Your task to perform on an android device: turn on notifications settings in the gmail app Image 0: 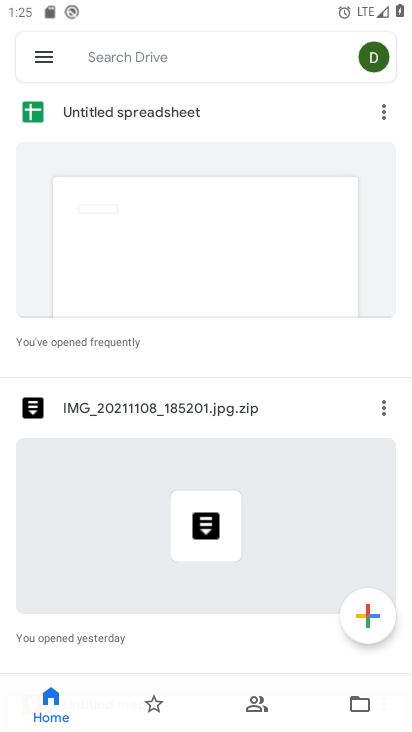
Step 0: press home button
Your task to perform on an android device: turn on notifications settings in the gmail app Image 1: 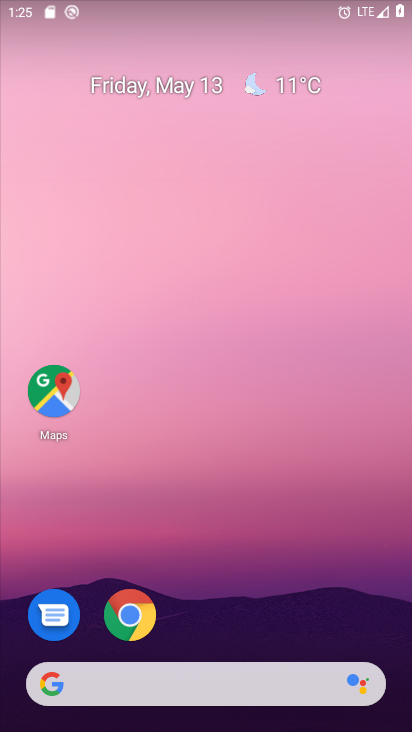
Step 1: drag from (170, 521) to (168, 48)
Your task to perform on an android device: turn on notifications settings in the gmail app Image 2: 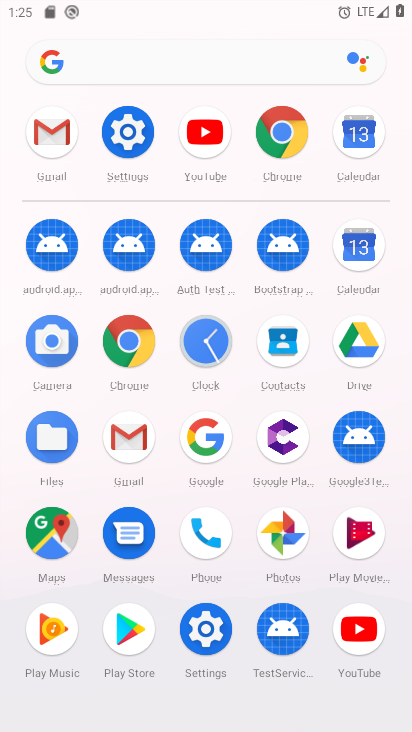
Step 2: click (48, 137)
Your task to perform on an android device: turn on notifications settings in the gmail app Image 3: 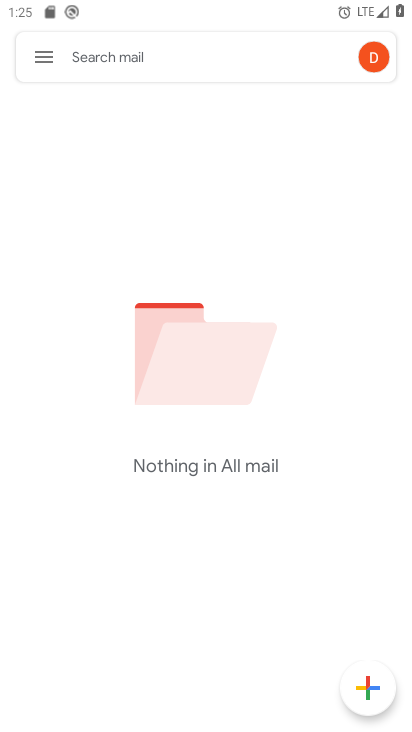
Step 3: click (34, 49)
Your task to perform on an android device: turn on notifications settings in the gmail app Image 4: 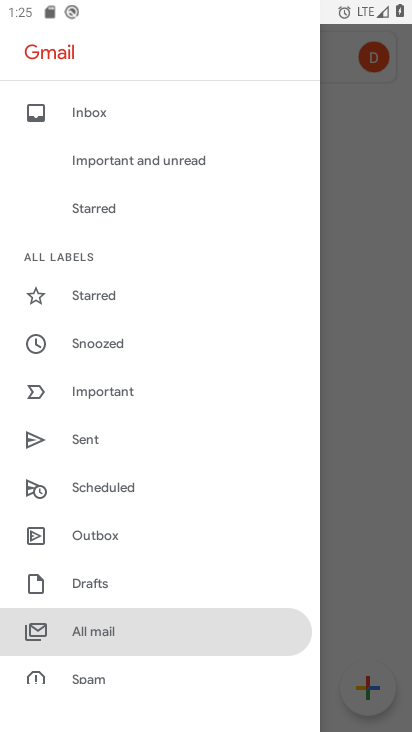
Step 4: drag from (130, 551) to (197, 91)
Your task to perform on an android device: turn on notifications settings in the gmail app Image 5: 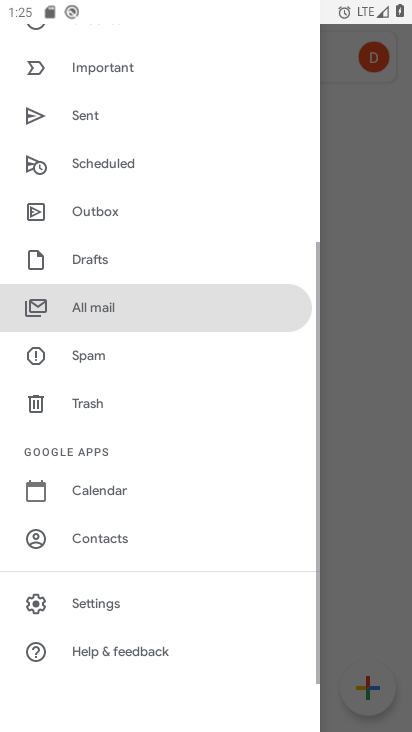
Step 5: click (121, 596)
Your task to perform on an android device: turn on notifications settings in the gmail app Image 6: 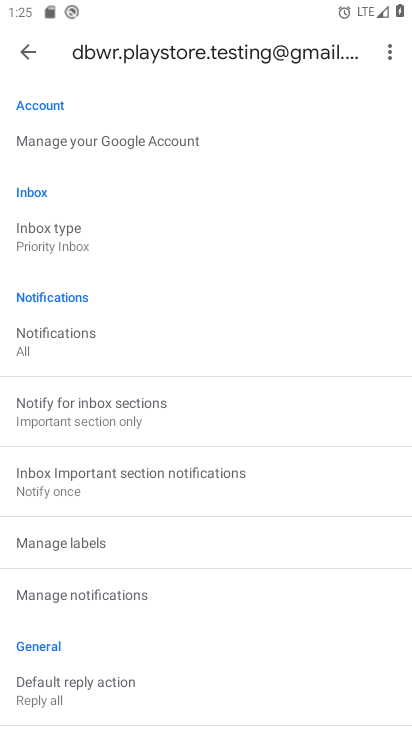
Step 6: click (172, 595)
Your task to perform on an android device: turn on notifications settings in the gmail app Image 7: 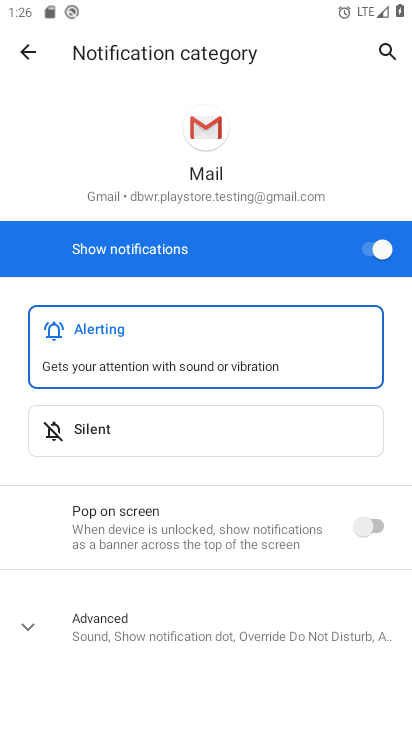
Step 7: task complete